Your task to perform on an android device: open chrome and create a bookmark for the current page Image 0: 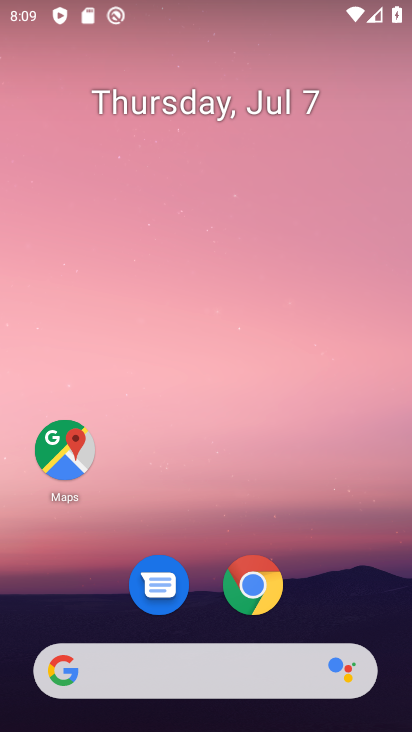
Step 0: click (262, 579)
Your task to perform on an android device: open chrome and create a bookmark for the current page Image 1: 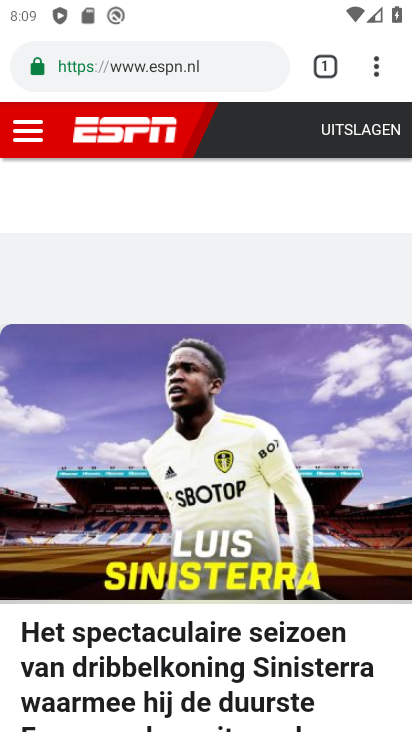
Step 1: click (377, 67)
Your task to perform on an android device: open chrome and create a bookmark for the current page Image 2: 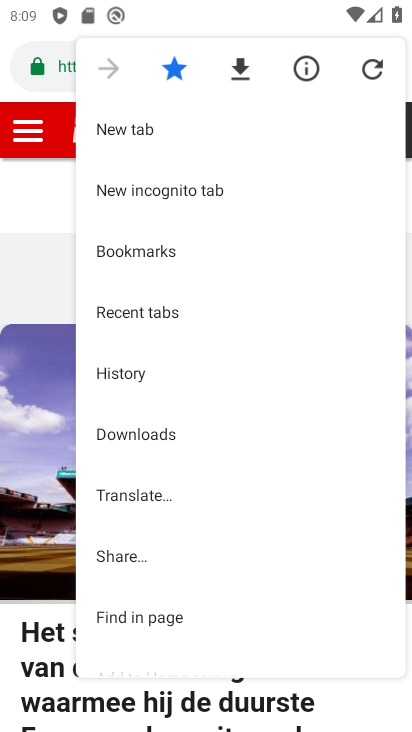
Step 2: task complete